Your task to perform on an android device: Search for pizza restaurants on Maps Image 0: 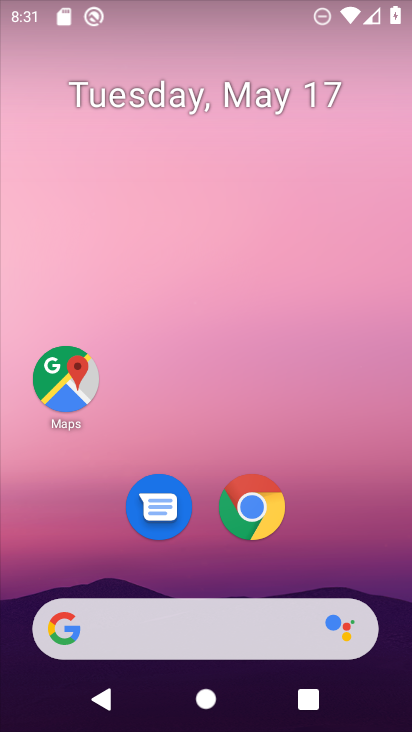
Step 0: click (56, 388)
Your task to perform on an android device: Search for pizza restaurants on Maps Image 1: 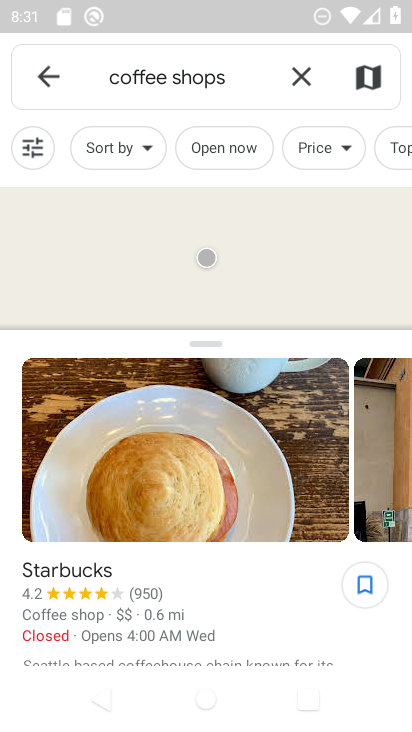
Step 1: click (311, 86)
Your task to perform on an android device: Search for pizza restaurants on Maps Image 2: 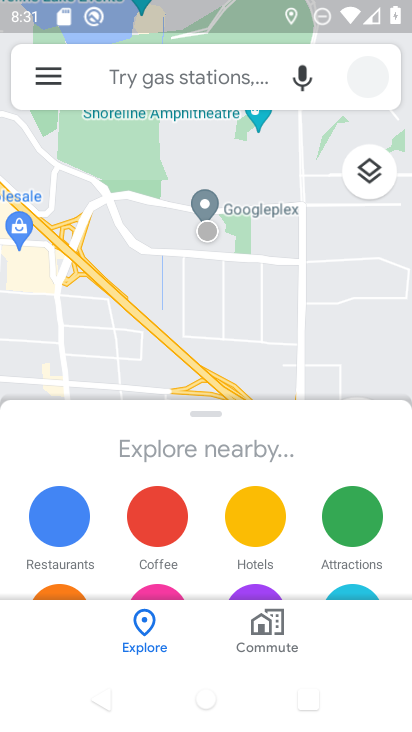
Step 2: click (126, 75)
Your task to perform on an android device: Search for pizza restaurants on Maps Image 3: 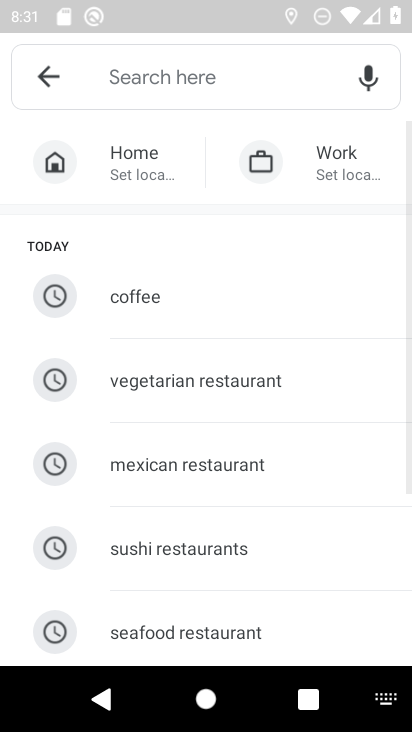
Step 3: click (125, 79)
Your task to perform on an android device: Search for pizza restaurants on Maps Image 4: 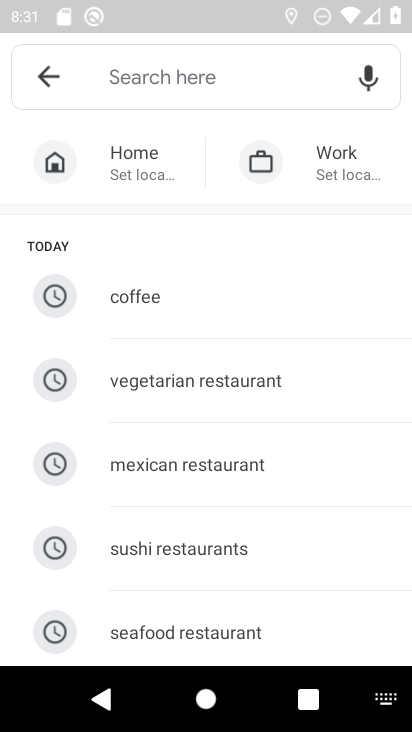
Step 4: type "pizza restaurant"
Your task to perform on an android device: Search for pizza restaurants on Maps Image 5: 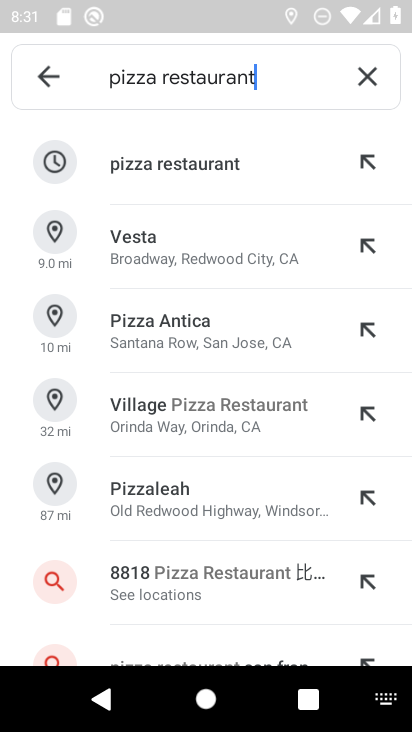
Step 5: click (162, 169)
Your task to perform on an android device: Search for pizza restaurants on Maps Image 6: 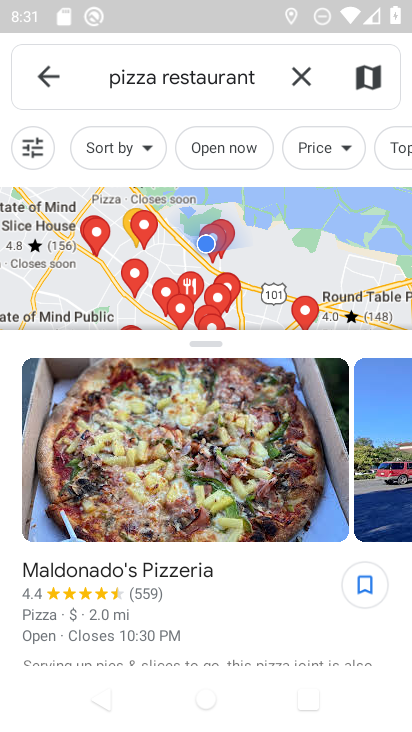
Step 6: task complete